Your task to perform on an android device: What is the news today? Image 0: 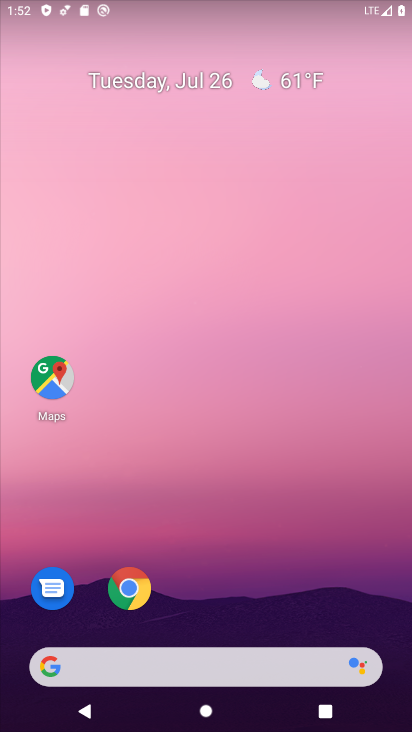
Step 0: drag from (248, 596) to (300, 73)
Your task to perform on an android device: What is the news today? Image 1: 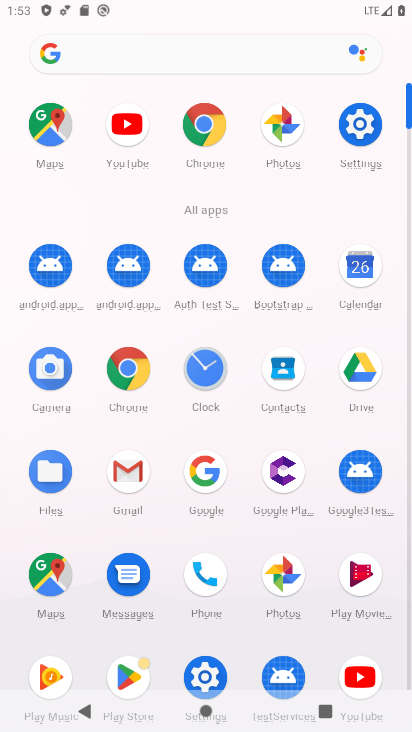
Step 1: click (203, 136)
Your task to perform on an android device: What is the news today? Image 2: 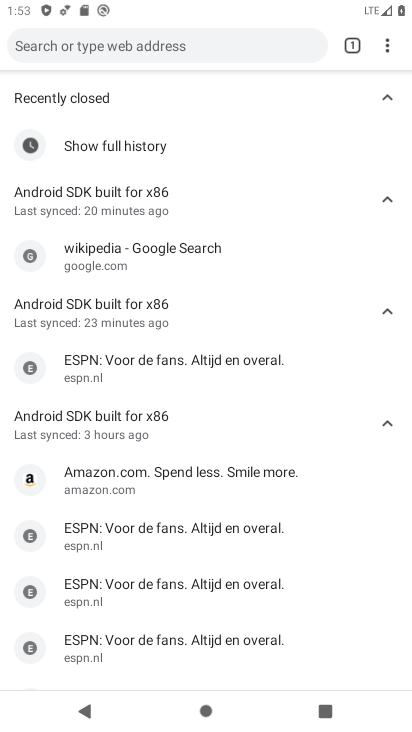
Step 2: task complete